Your task to perform on an android device: open app "Truecaller" (install if not already installed) and go to login screen Image 0: 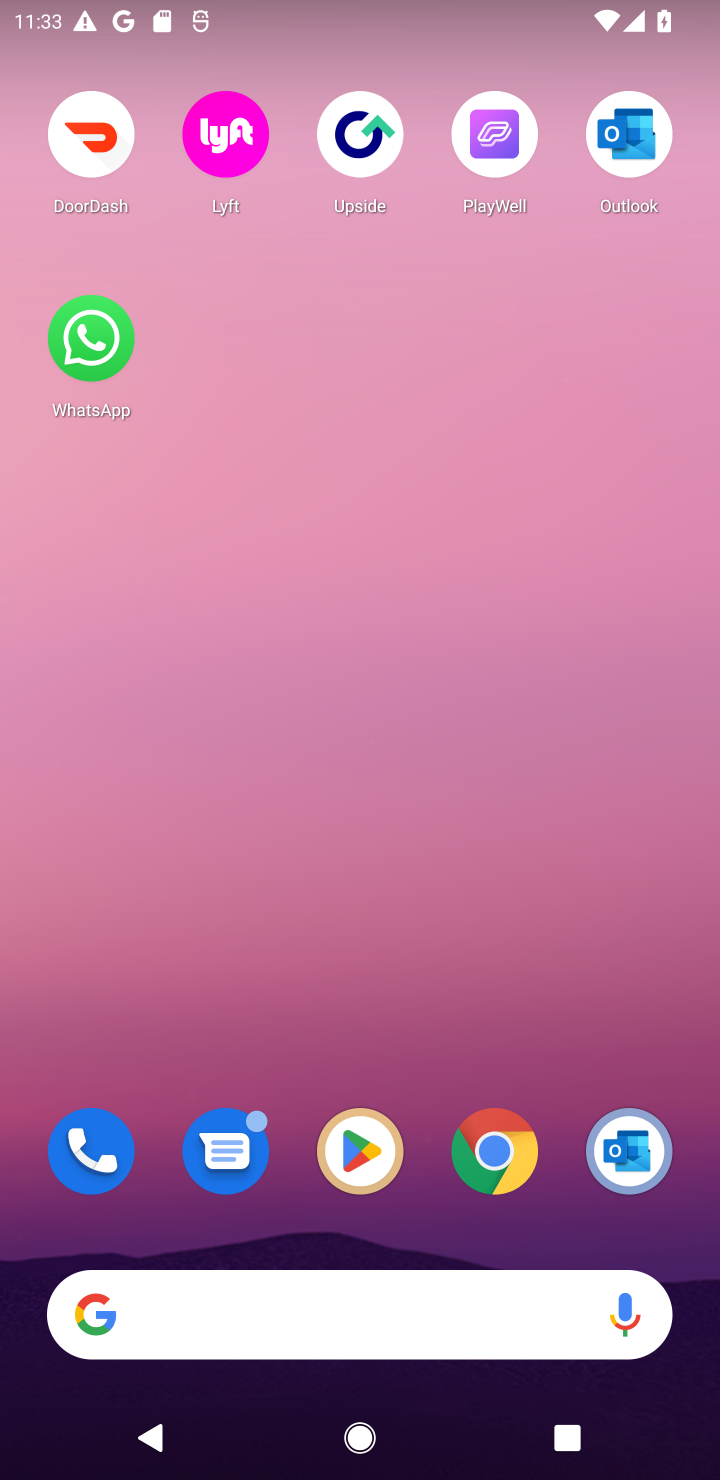
Step 0: click (351, 1125)
Your task to perform on an android device: open app "Truecaller" (install if not already installed) and go to login screen Image 1: 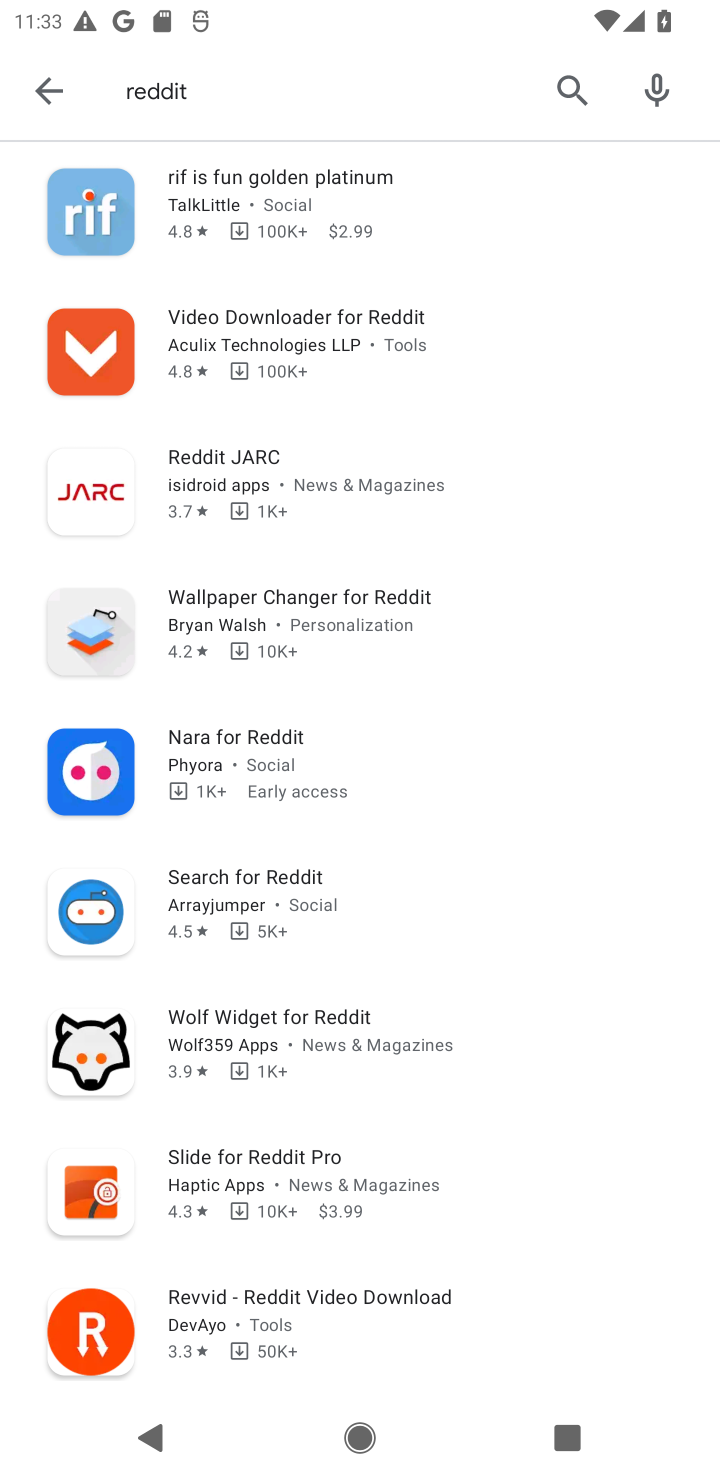
Step 1: click (555, 93)
Your task to perform on an android device: open app "Truecaller" (install if not already installed) and go to login screen Image 2: 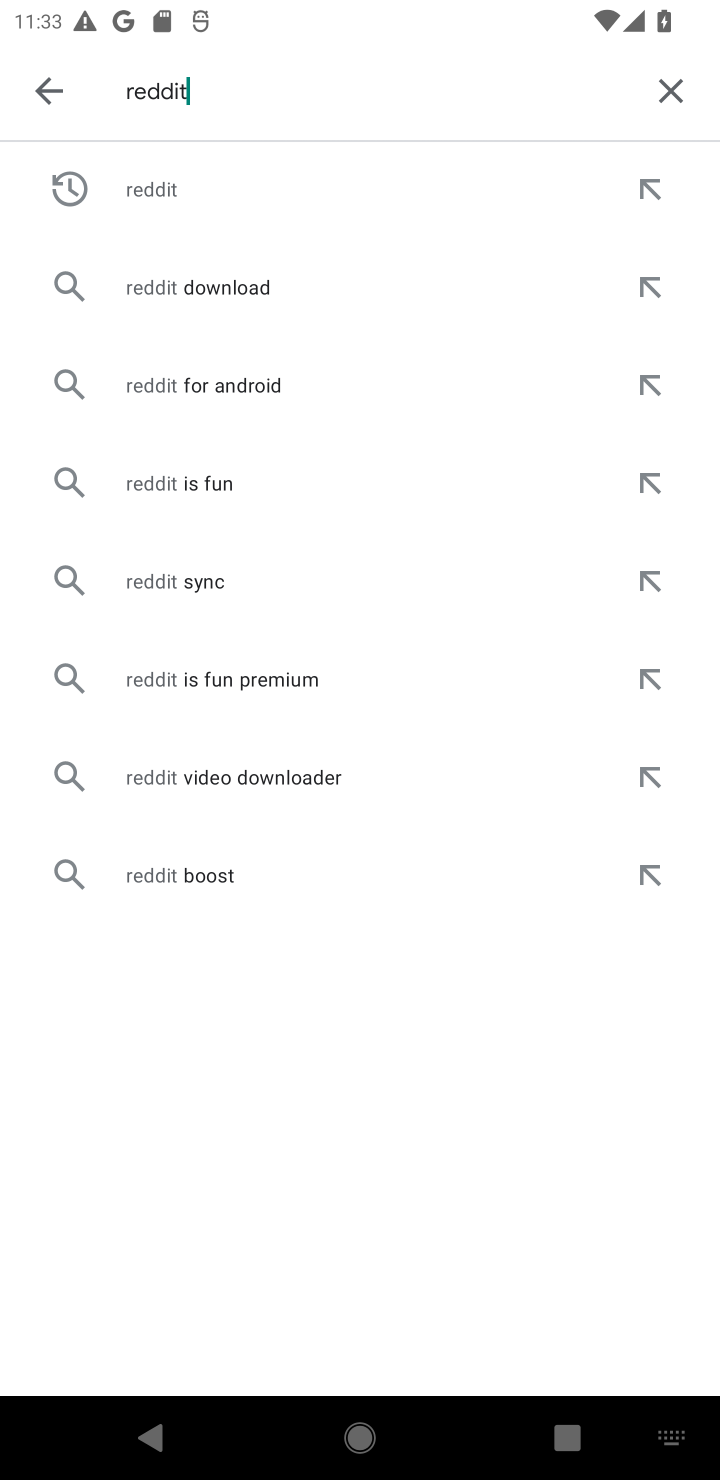
Step 2: click (659, 71)
Your task to perform on an android device: open app "Truecaller" (install if not already installed) and go to login screen Image 3: 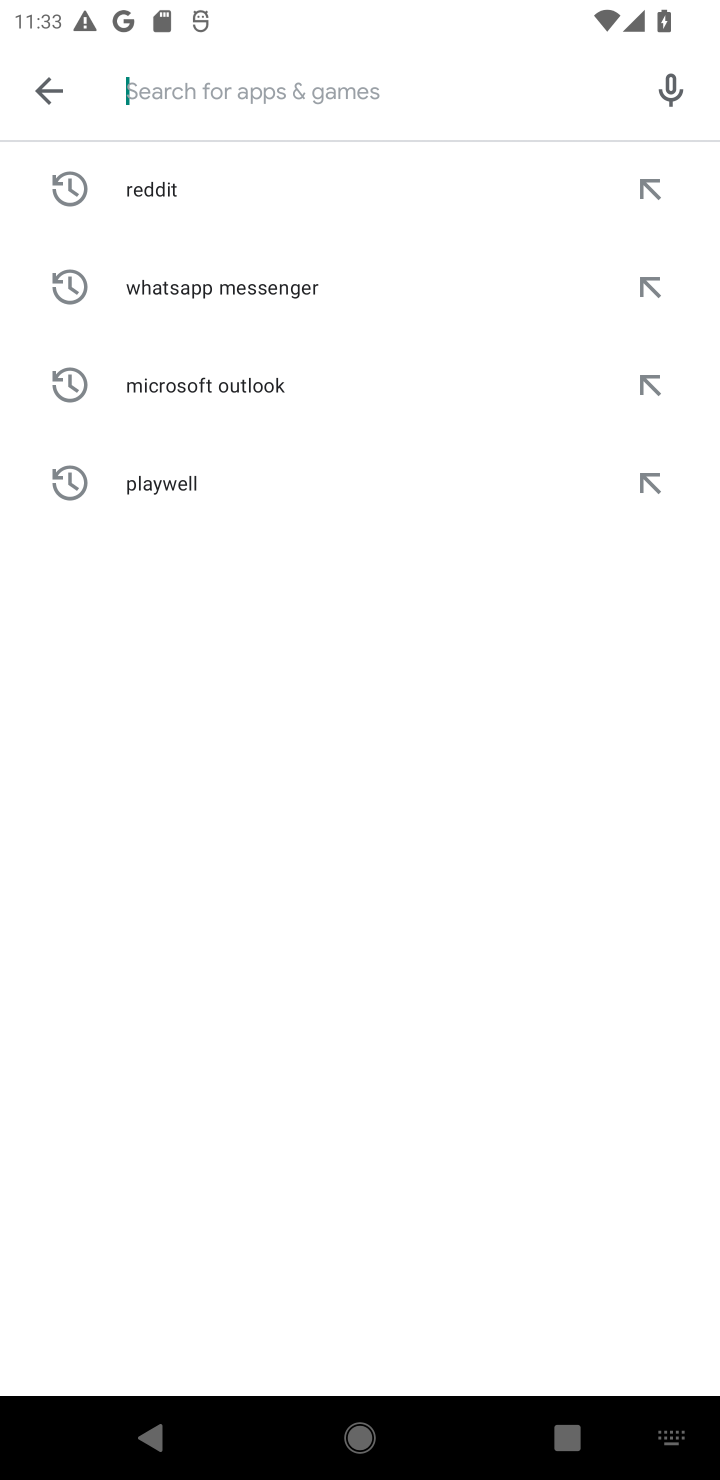
Step 3: type "Truecaller"
Your task to perform on an android device: open app "Truecaller" (install if not already installed) and go to login screen Image 4: 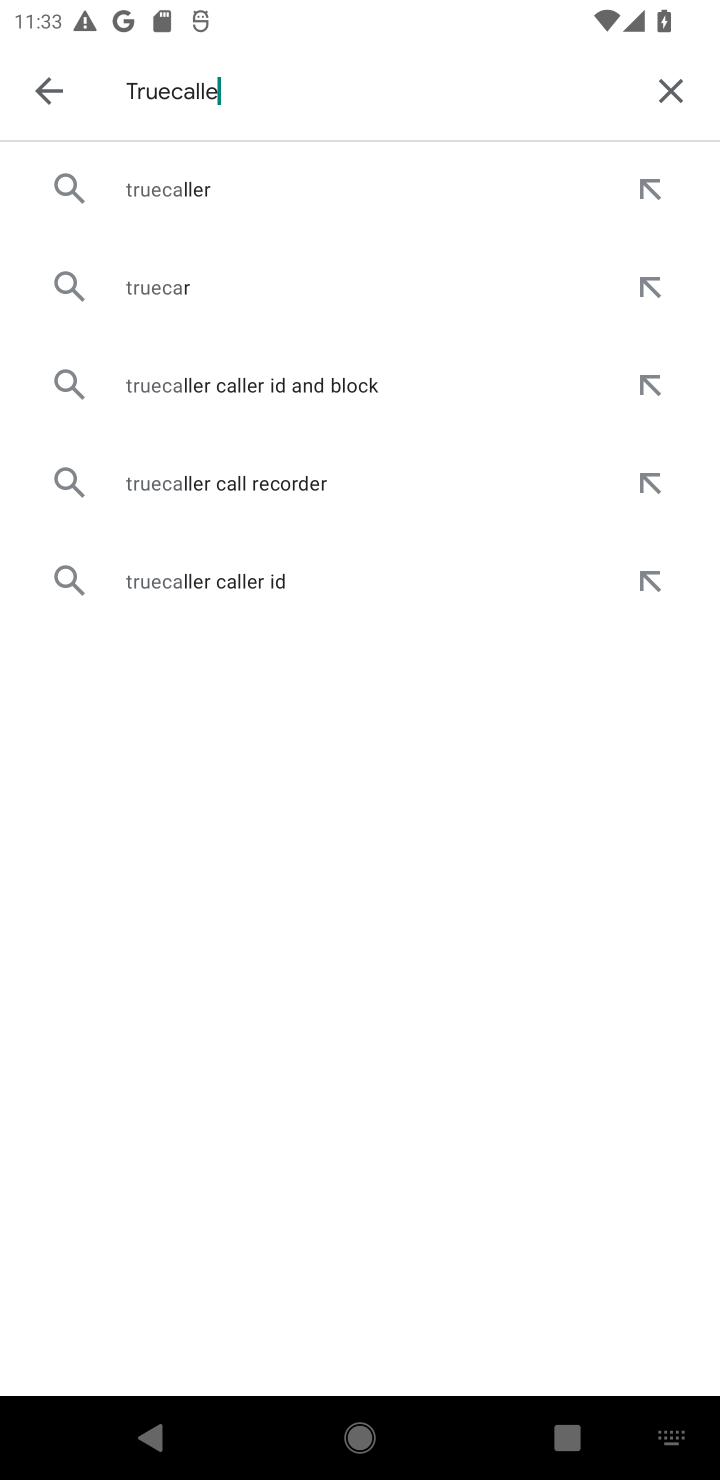
Step 4: type ""
Your task to perform on an android device: open app "Truecaller" (install if not already installed) and go to login screen Image 5: 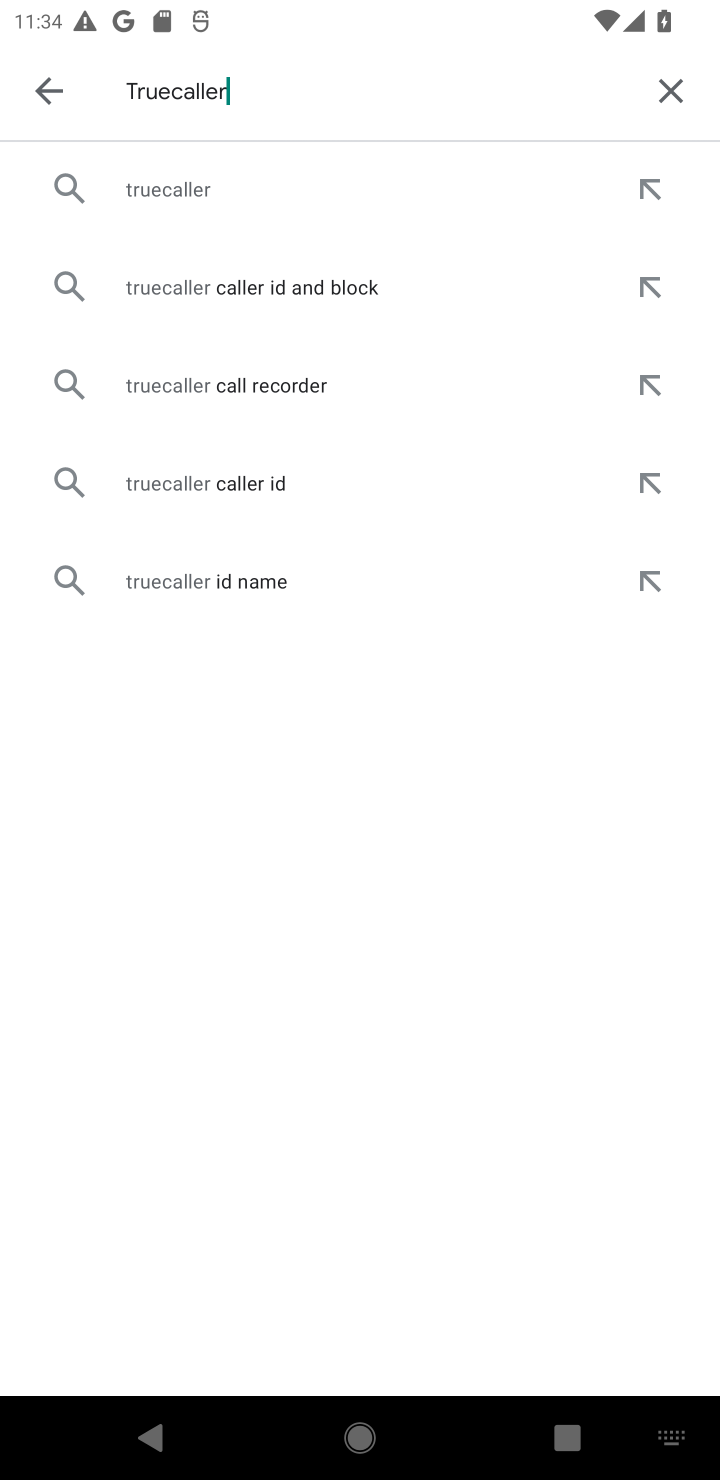
Step 5: click (121, 171)
Your task to perform on an android device: open app "Truecaller" (install if not already installed) and go to login screen Image 6: 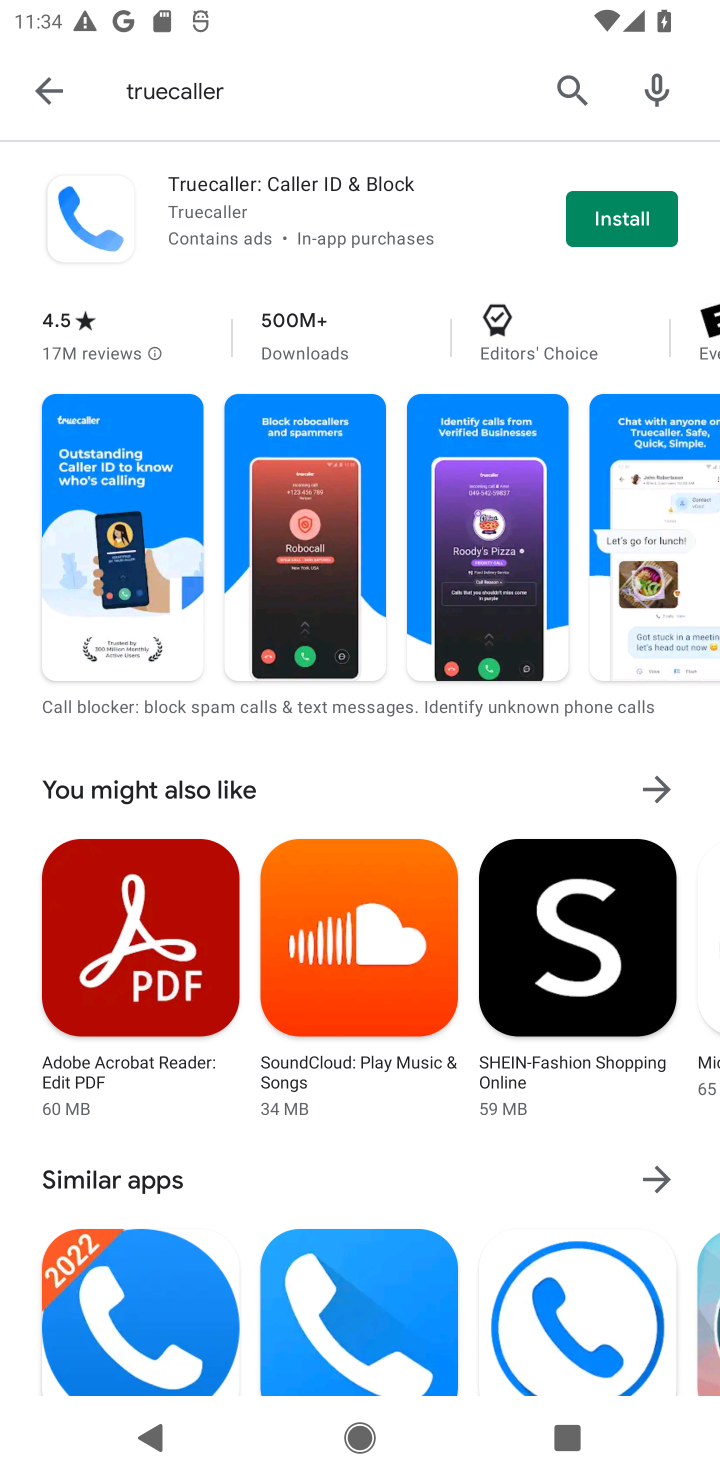
Step 6: click (647, 210)
Your task to perform on an android device: open app "Truecaller" (install if not already installed) and go to login screen Image 7: 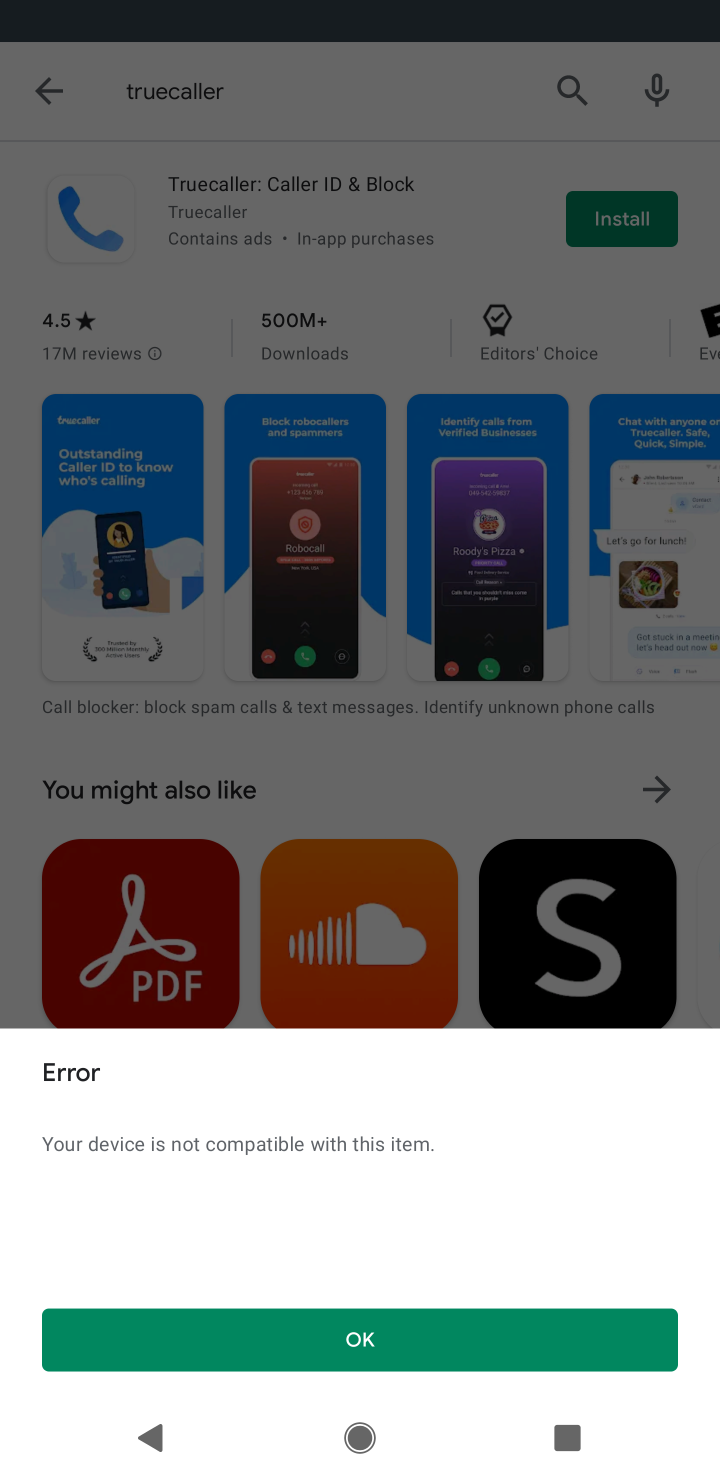
Step 7: click (251, 1329)
Your task to perform on an android device: open app "Truecaller" (install if not already installed) and go to login screen Image 8: 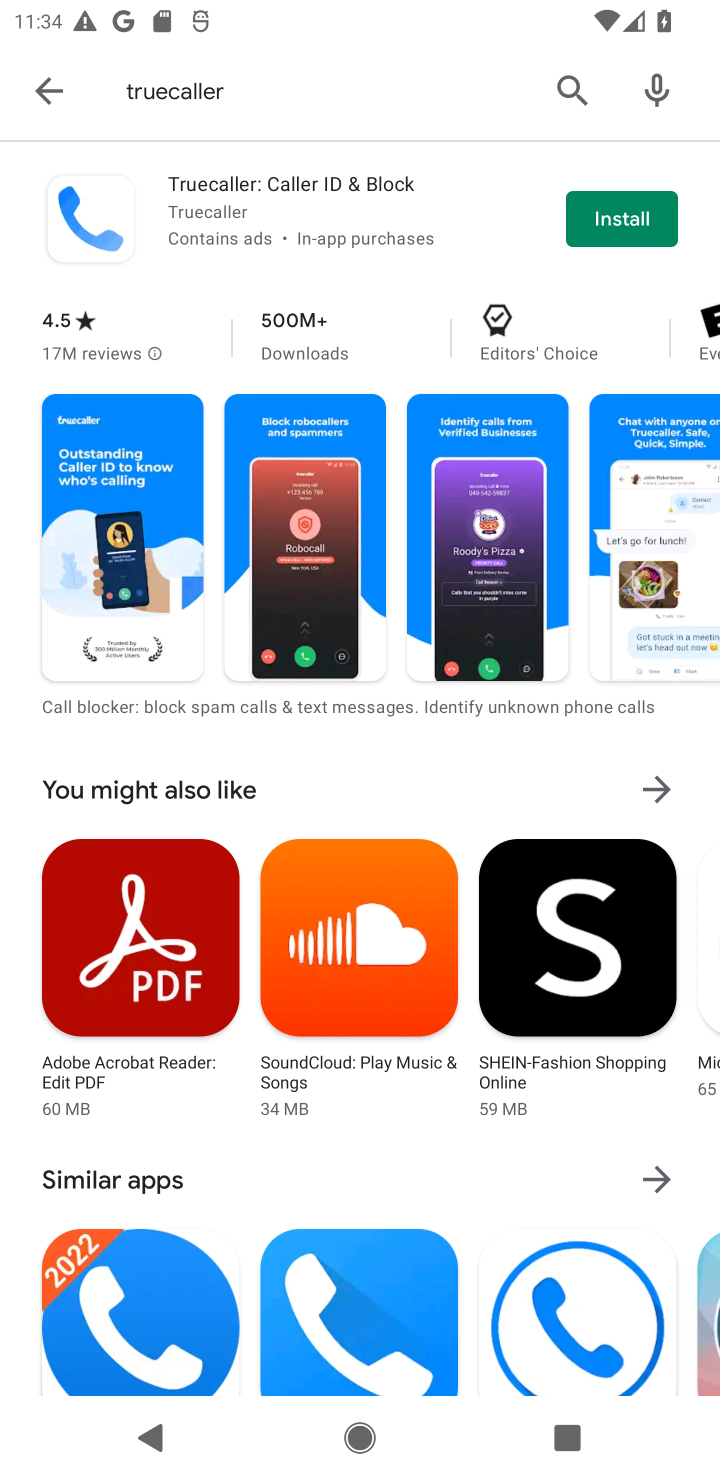
Step 8: task complete